Your task to perform on an android device: Open Google Image 0: 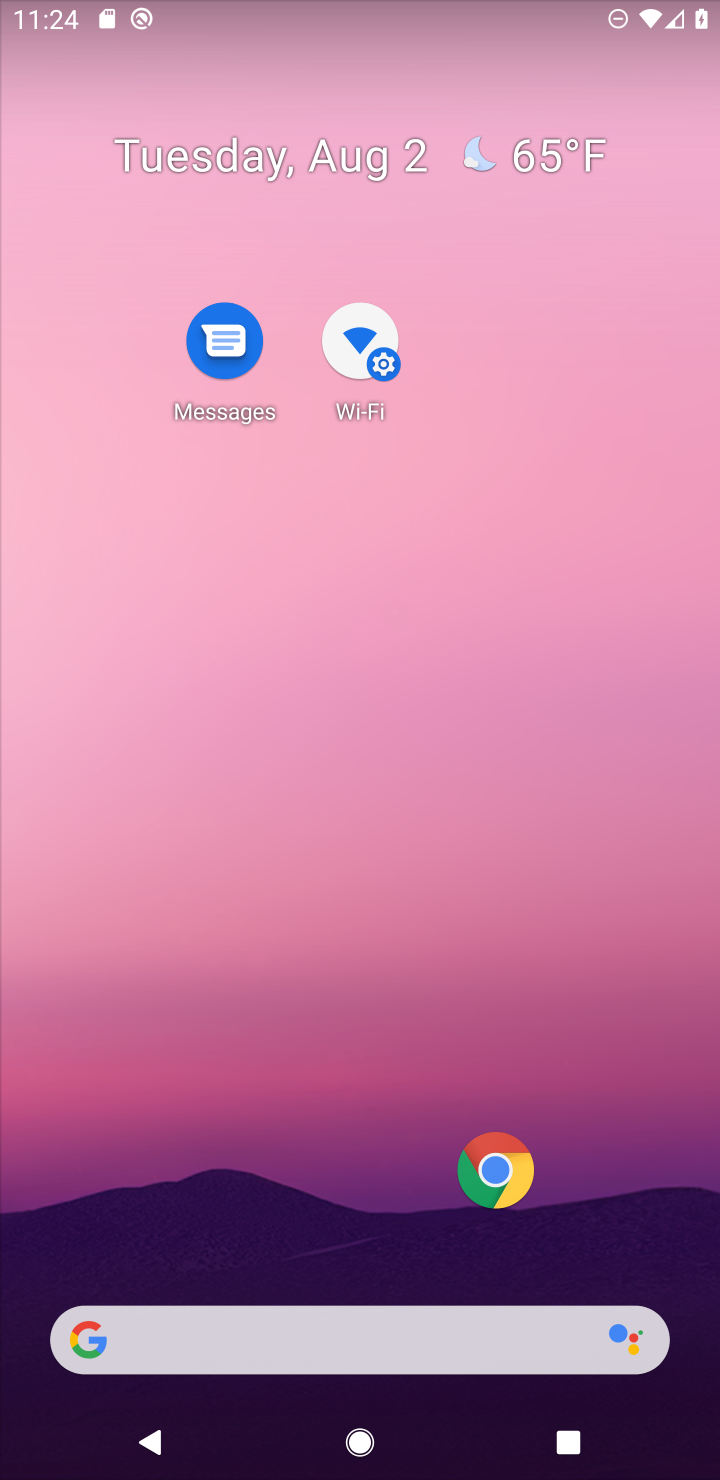
Step 0: drag from (323, 1195) to (370, 238)
Your task to perform on an android device: Open Google Image 1: 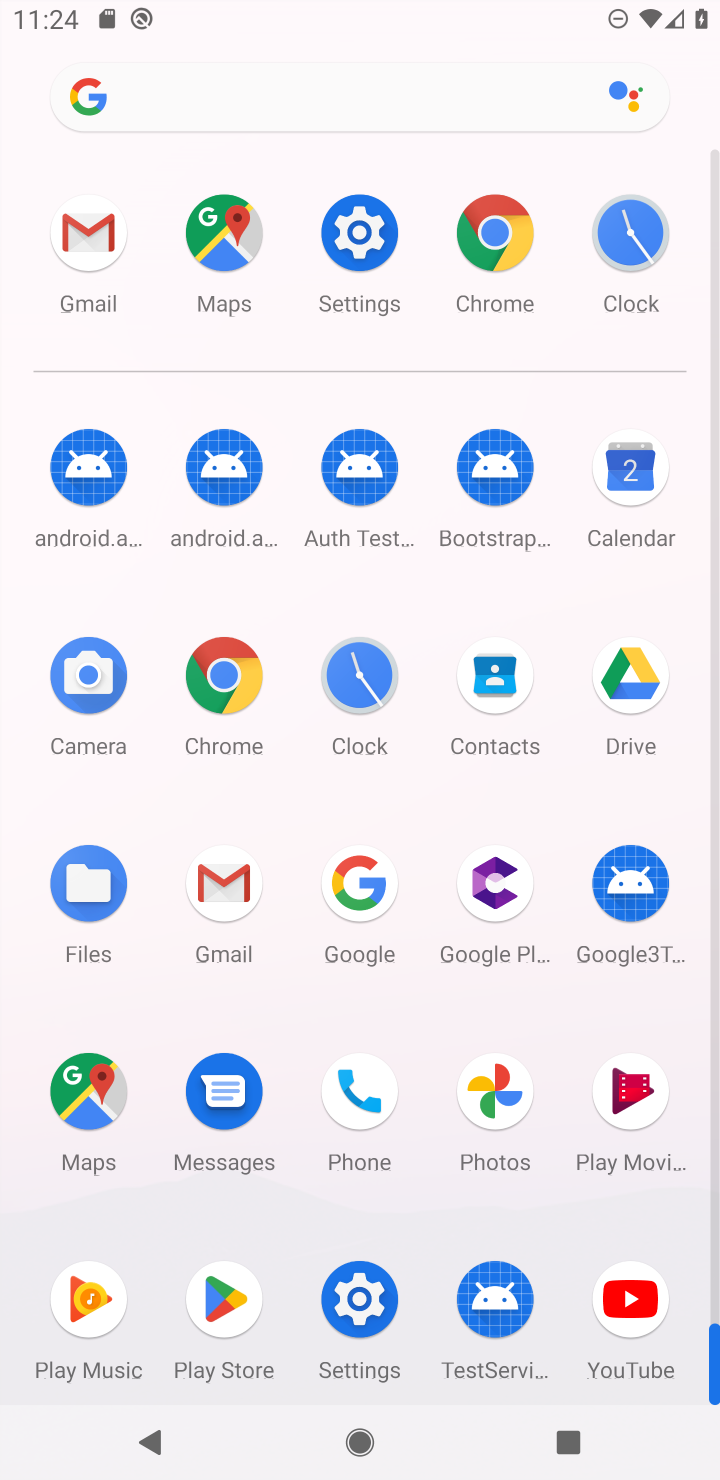
Step 1: click (345, 875)
Your task to perform on an android device: Open Google Image 2: 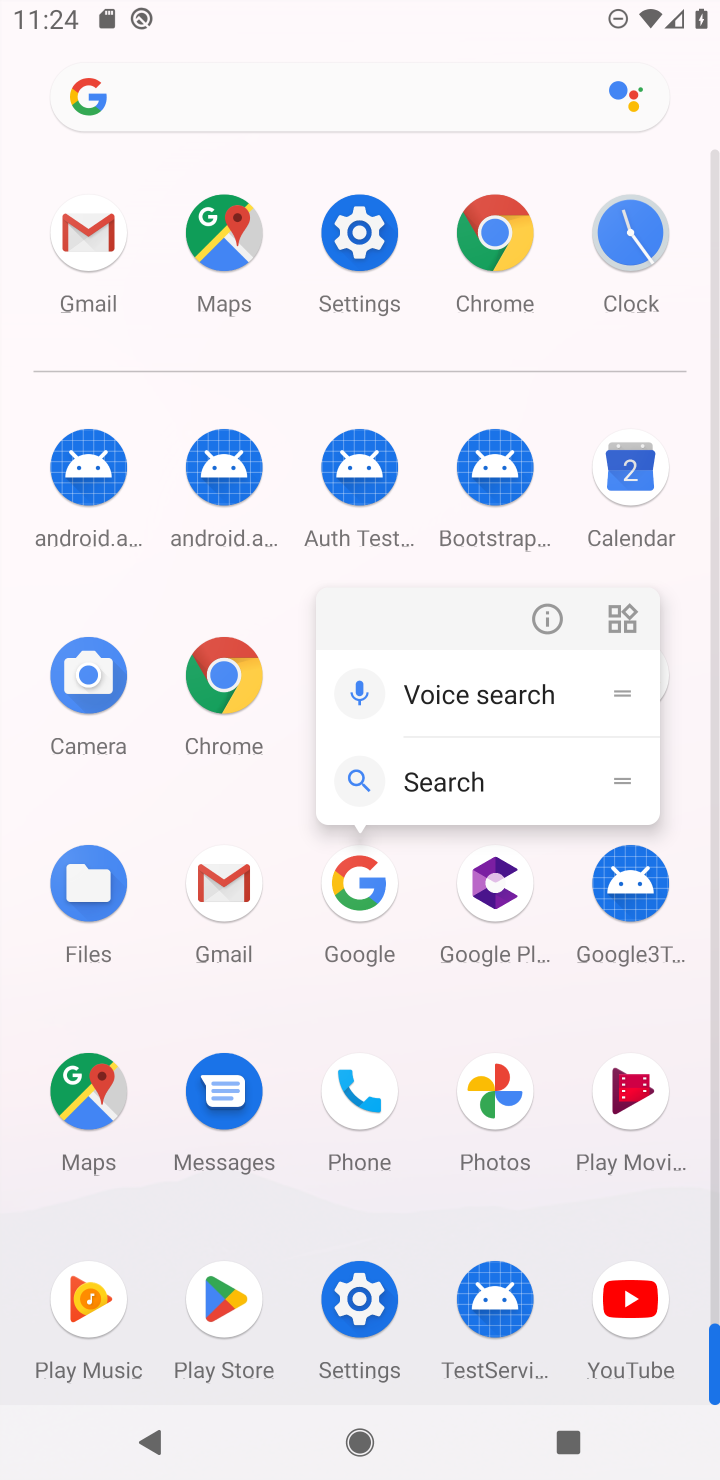
Step 2: click (538, 626)
Your task to perform on an android device: Open Google Image 3: 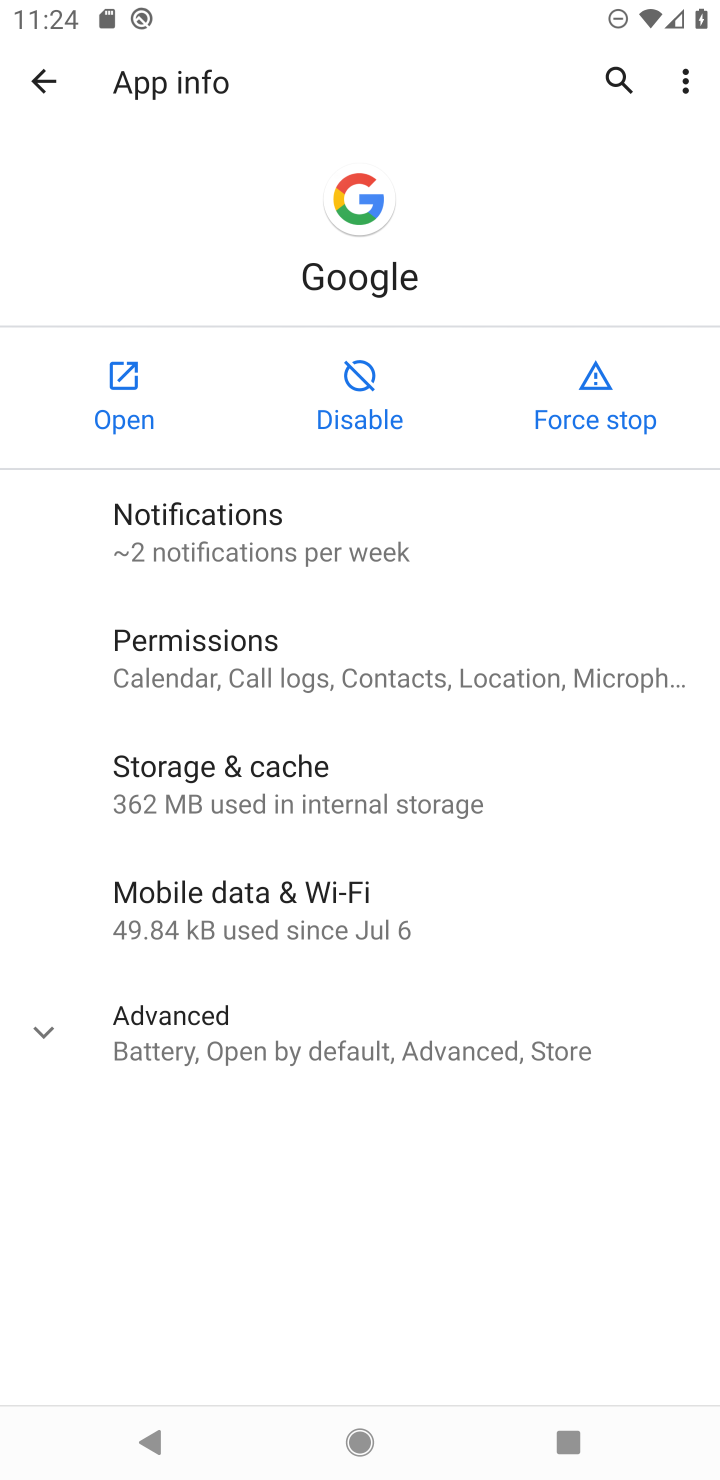
Step 3: click (125, 382)
Your task to perform on an android device: Open Google Image 4: 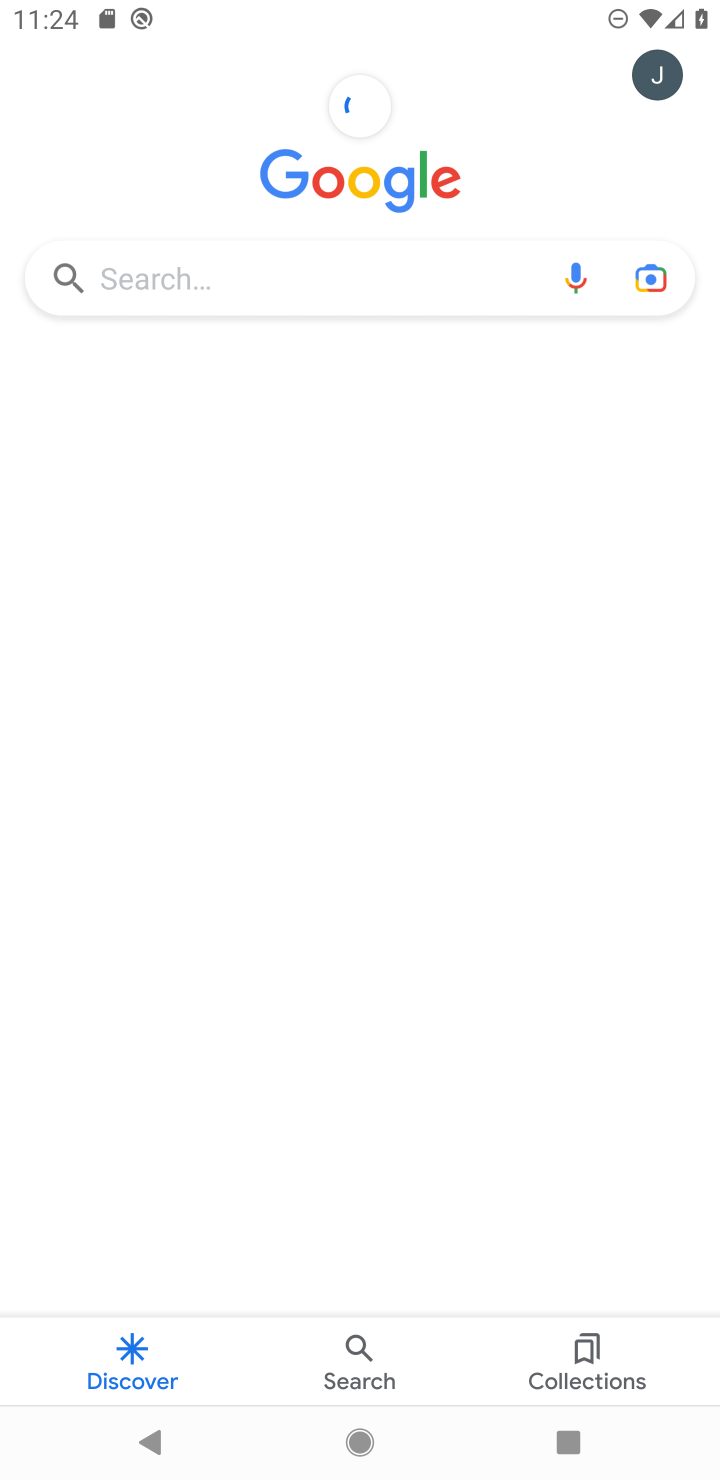
Step 4: click (504, 464)
Your task to perform on an android device: Open Google Image 5: 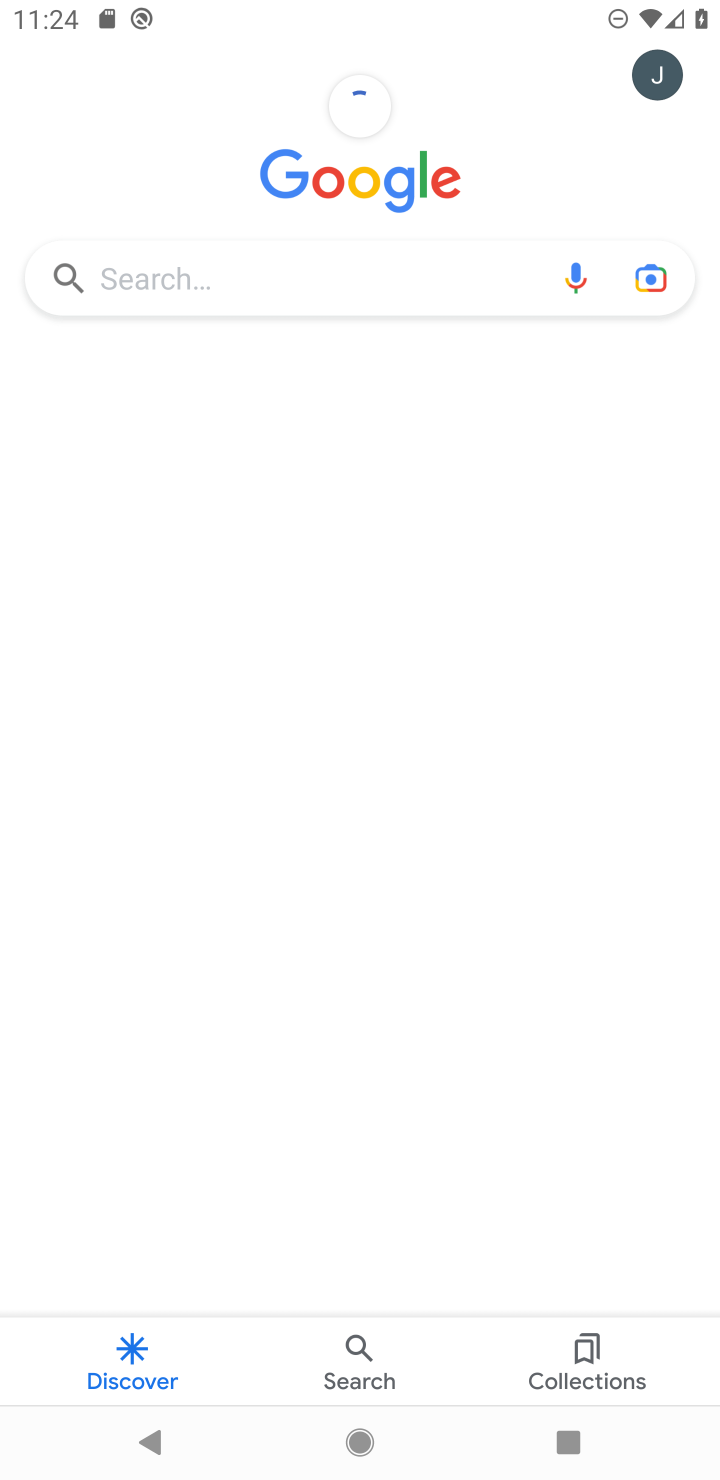
Step 5: task complete